Your task to perform on an android device: Open Google Maps Image 0: 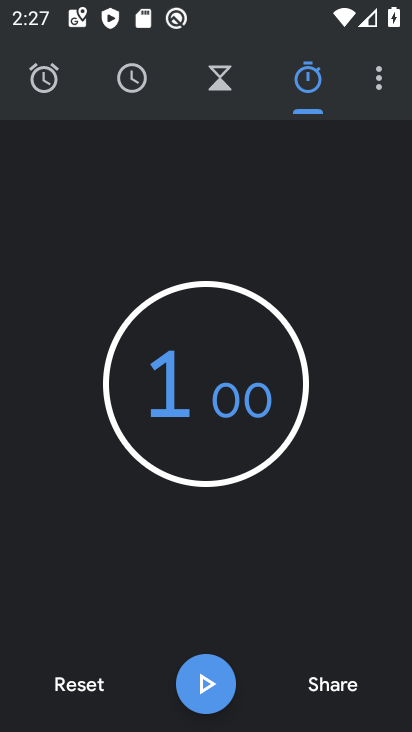
Step 0: press home button
Your task to perform on an android device: Open Google Maps Image 1: 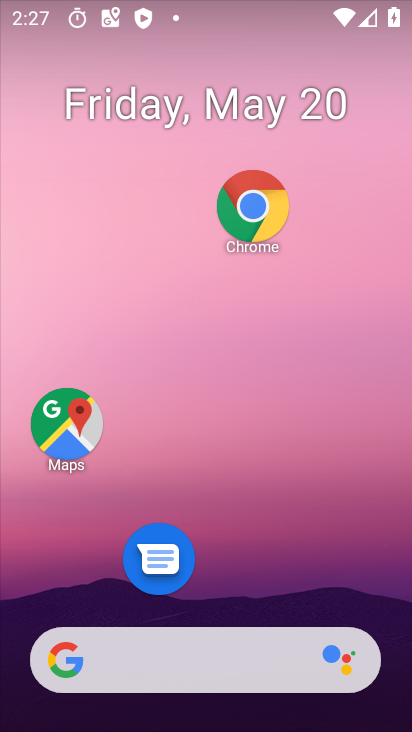
Step 1: drag from (214, 622) to (368, 28)
Your task to perform on an android device: Open Google Maps Image 2: 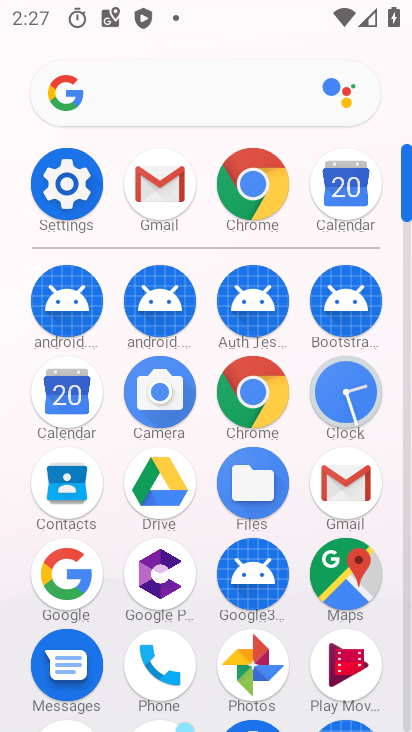
Step 2: click (344, 567)
Your task to perform on an android device: Open Google Maps Image 3: 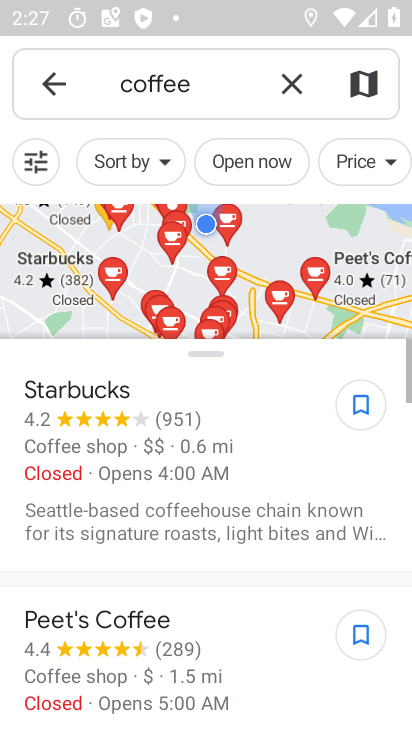
Step 3: task complete